Your task to perform on an android device: change the clock display to show seconds Image 0: 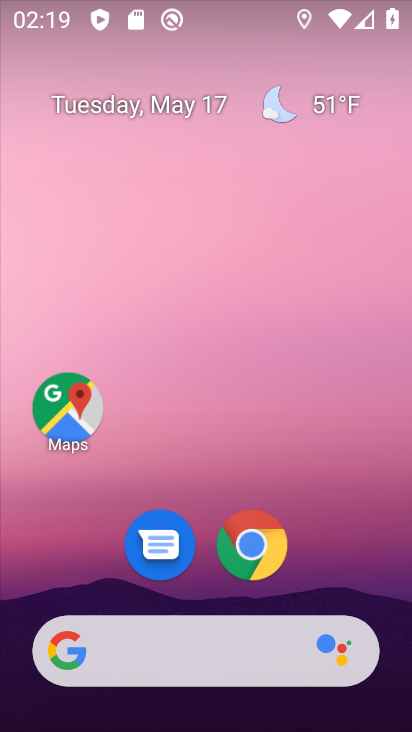
Step 0: drag from (204, 492) to (251, 89)
Your task to perform on an android device: change the clock display to show seconds Image 1: 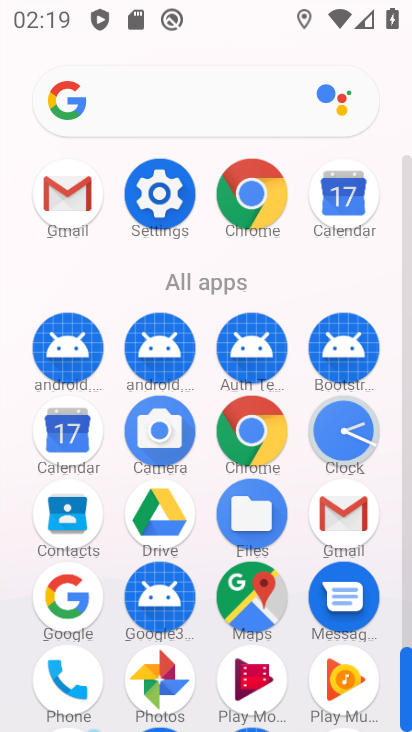
Step 1: click (342, 448)
Your task to perform on an android device: change the clock display to show seconds Image 2: 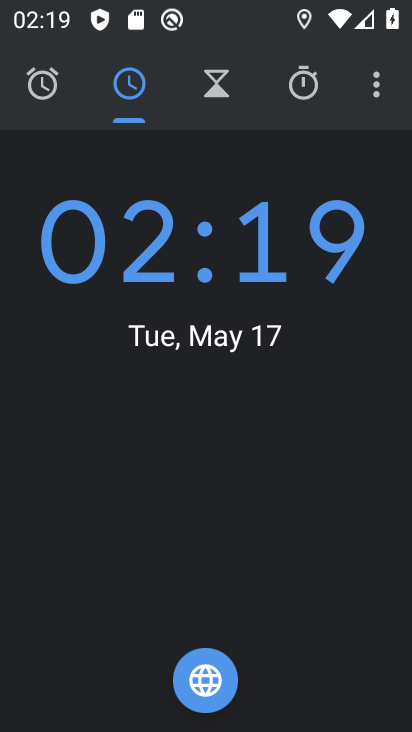
Step 2: click (384, 99)
Your task to perform on an android device: change the clock display to show seconds Image 3: 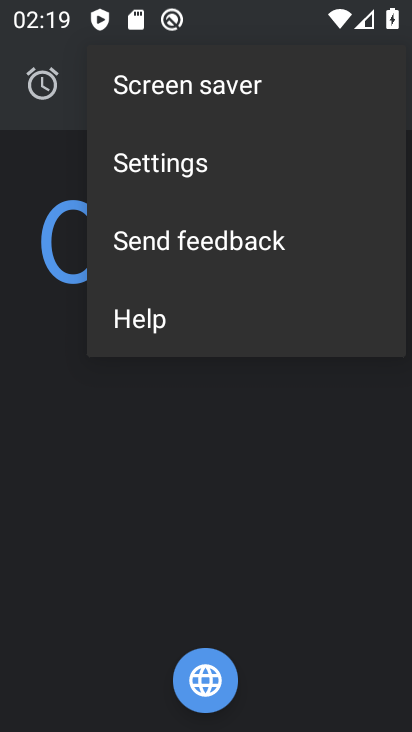
Step 3: click (192, 159)
Your task to perform on an android device: change the clock display to show seconds Image 4: 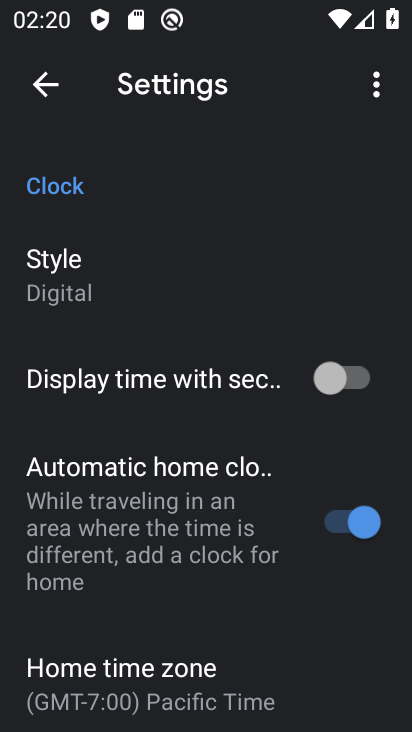
Step 4: click (354, 385)
Your task to perform on an android device: change the clock display to show seconds Image 5: 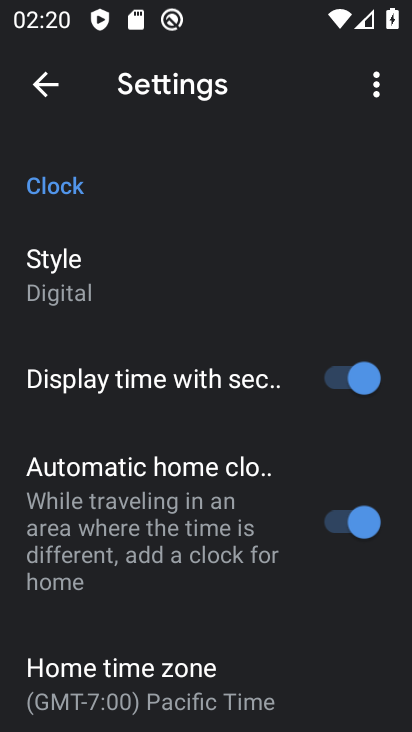
Step 5: task complete